Your task to perform on an android device: open app "Lyft - Rideshare, Bikes, Scooters & Transit" (install if not already installed) Image 0: 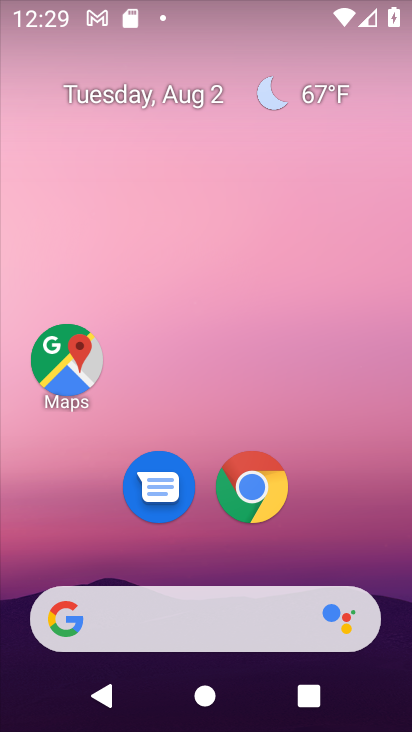
Step 0: drag from (228, 371) to (217, 102)
Your task to perform on an android device: open app "Lyft - Rideshare, Bikes, Scooters & Transit" (install if not already installed) Image 1: 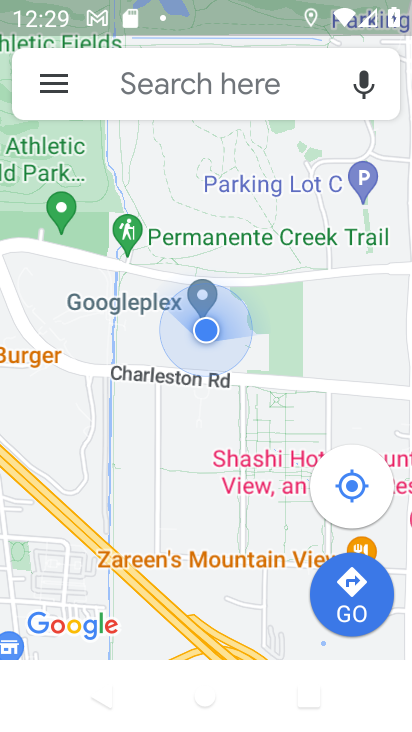
Step 1: press home button
Your task to perform on an android device: open app "Lyft - Rideshare, Bikes, Scooters & Transit" (install if not already installed) Image 2: 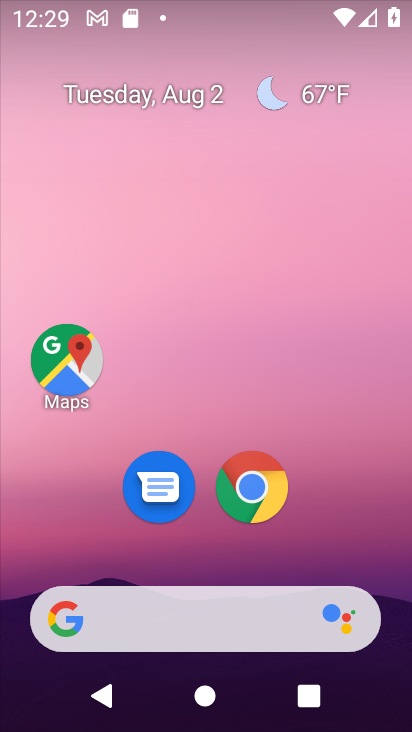
Step 2: click (302, 336)
Your task to perform on an android device: open app "Lyft - Rideshare, Bikes, Scooters & Transit" (install if not already installed) Image 3: 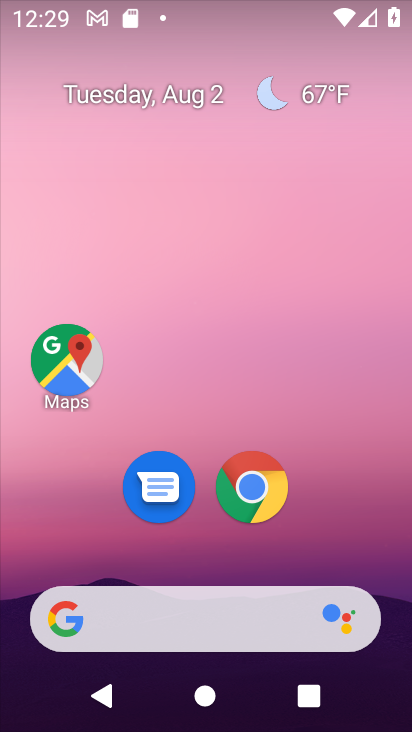
Step 3: drag from (196, 602) to (190, 199)
Your task to perform on an android device: open app "Lyft - Rideshare, Bikes, Scooters & Transit" (install if not already installed) Image 4: 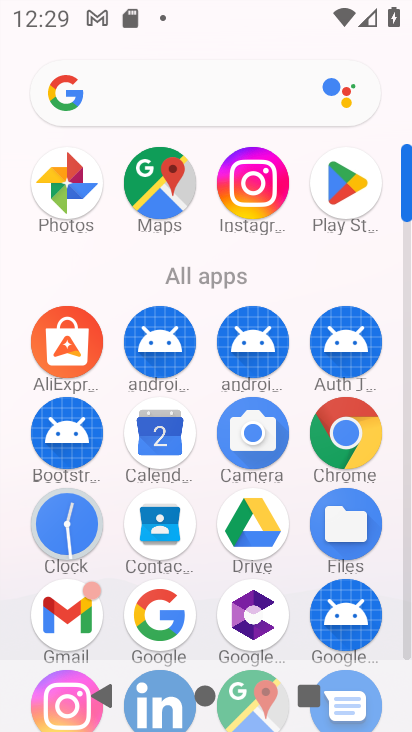
Step 4: click (341, 200)
Your task to perform on an android device: open app "Lyft - Rideshare, Bikes, Scooters & Transit" (install if not already installed) Image 5: 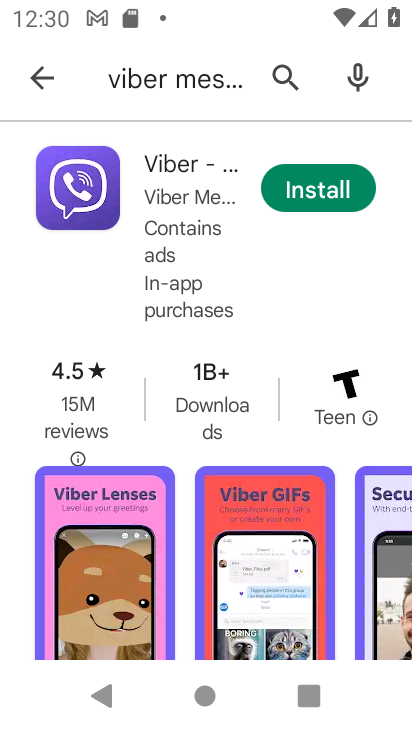
Step 5: click (40, 86)
Your task to perform on an android device: open app "Lyft - Rideshare, Bikes, Scooters & Transit" (install if not already installed) Image 6: 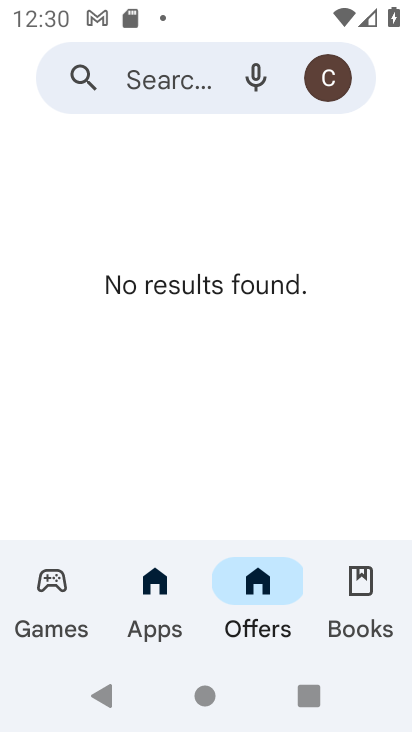
Step 6: click (88, 99)
Your task to perform on an android device: open app "Lyft - Rideshare, Bikes, Scooters & Transit" (install if not already installed) Image 7: 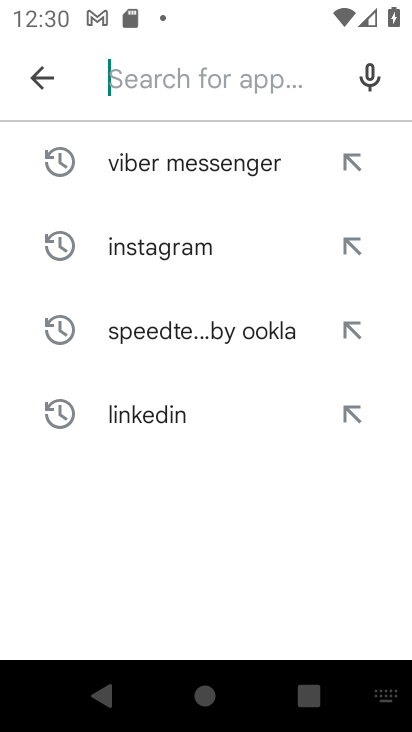
Step 7: click (31, 66)
Your task to perform on an android device: open app "Lyft - Rideshare, Bikes, Scooters & Transit" (install if not already installed) Image 8: 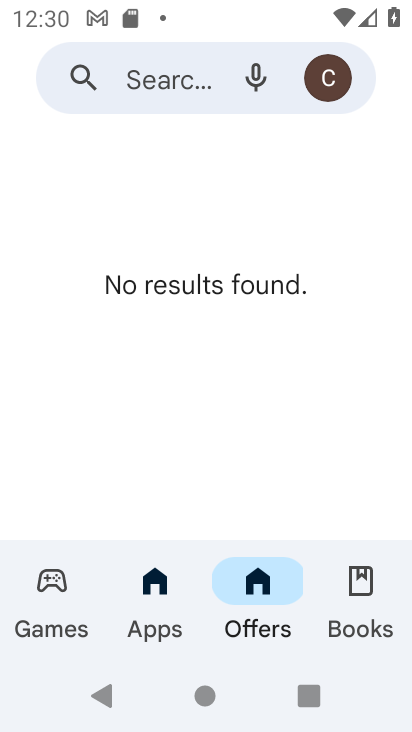
Step 8: click (34, 593)
Your task to perform on an android device: open app "Lyft - Rideshare, Bikes, Scooters & Transit" (install if not already installed) Image 9: 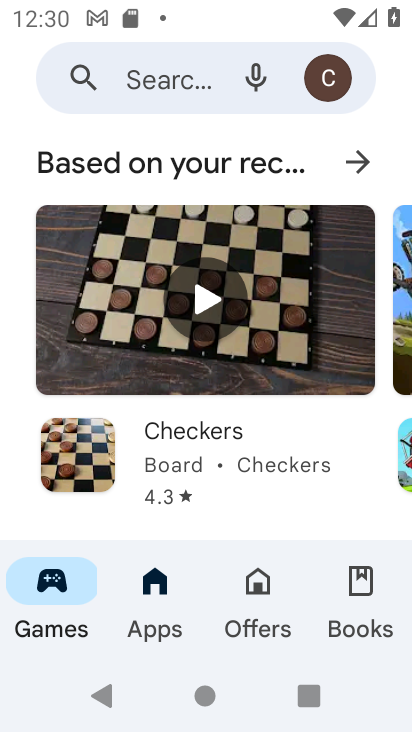
Step 9: click (111, 80)
Your task to perform on an android device: open app "Lyft - Rideshare, Bikes, Scooters & Transit" (install if not already installed) Image 10: 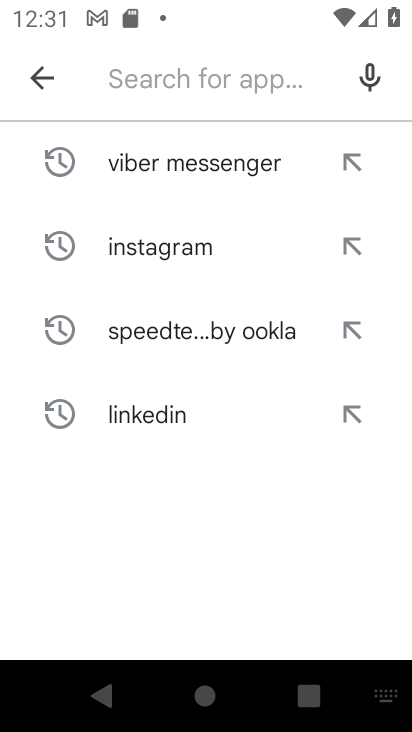
Step 10: type "Lyft - Rideshare, Bikes, Scooters & Transit"
Your task to perform on an android device: open app "Lyft - Rideshare, Bikes, Scooters & Transit" (install if not already installed) Image 11: 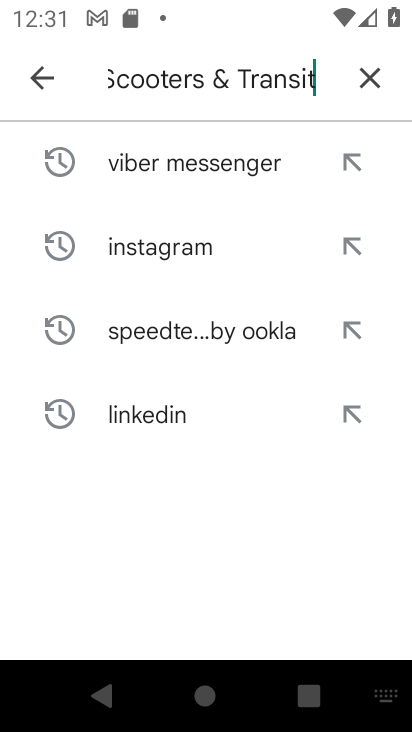
Step 11: type ""
Your task to perform on an android device: open app "Lyft - Rideshare, Bikes, Scooters & Transit" (install if not already installed) Image 12: 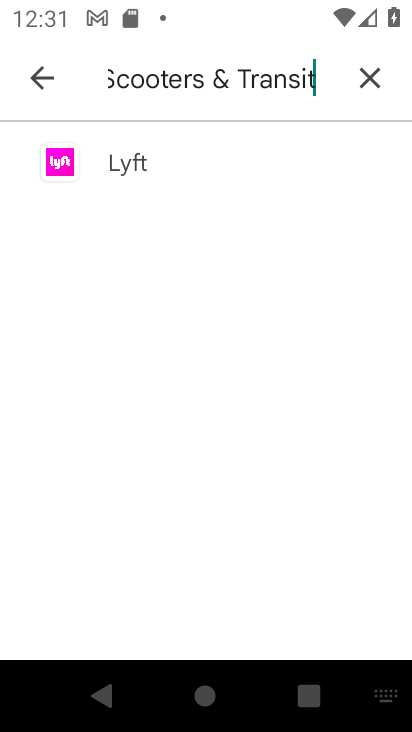
Step 12: click (111, 163)
Your task to perform on an android device: open app "Lyft - Rideshare, Bikes, Scooters & Transit" (install if not already installed) Image 13: 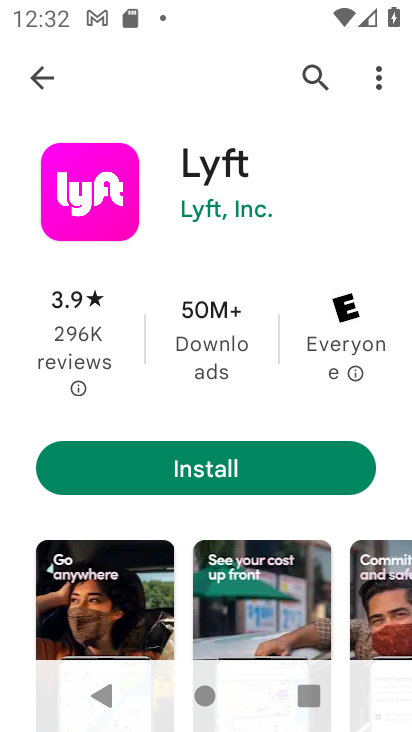
Step 13: click (296, 481)
Your task to perform on an android device: open app "Lyft - Rideshare, Bikes, Scooters & Transit" (install if not already installed) Image 14: 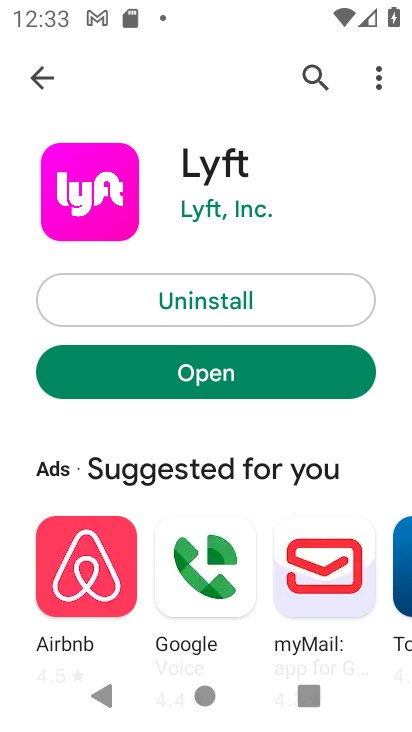
Step 14: click (186, 382)
Your task to perform on an android device: open app "Lyft - Rideshare, Bikes, Scooters & Transit" (install if not already installed) Image 15: 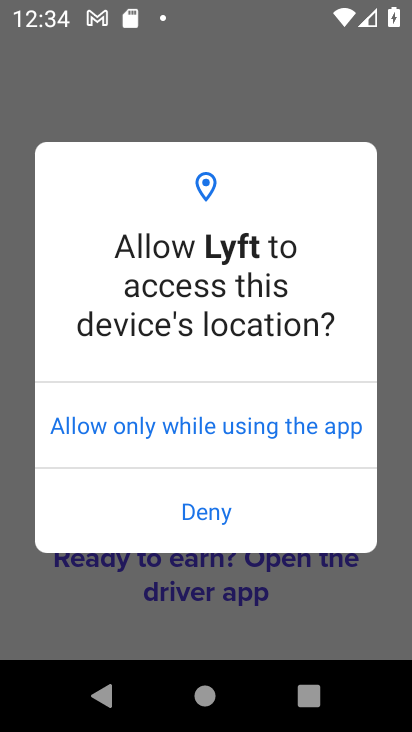
Step 15: task complete